Your task to perform on an android device: clear history in the chrome app Image 0: 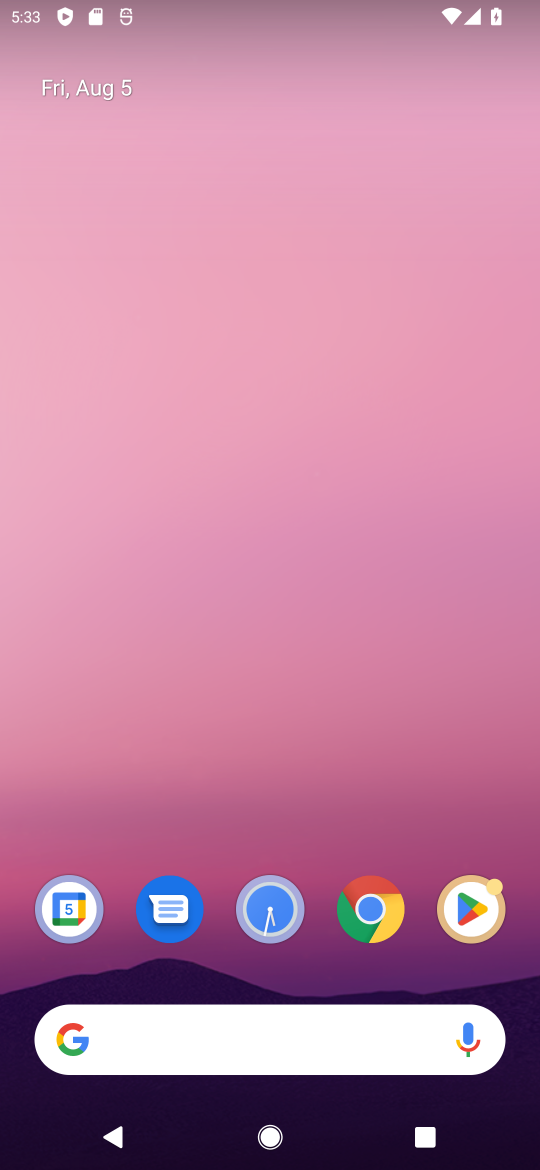
Step 0: press home button
Your task to perform on an android device: clear history in the chrome app Image 1: 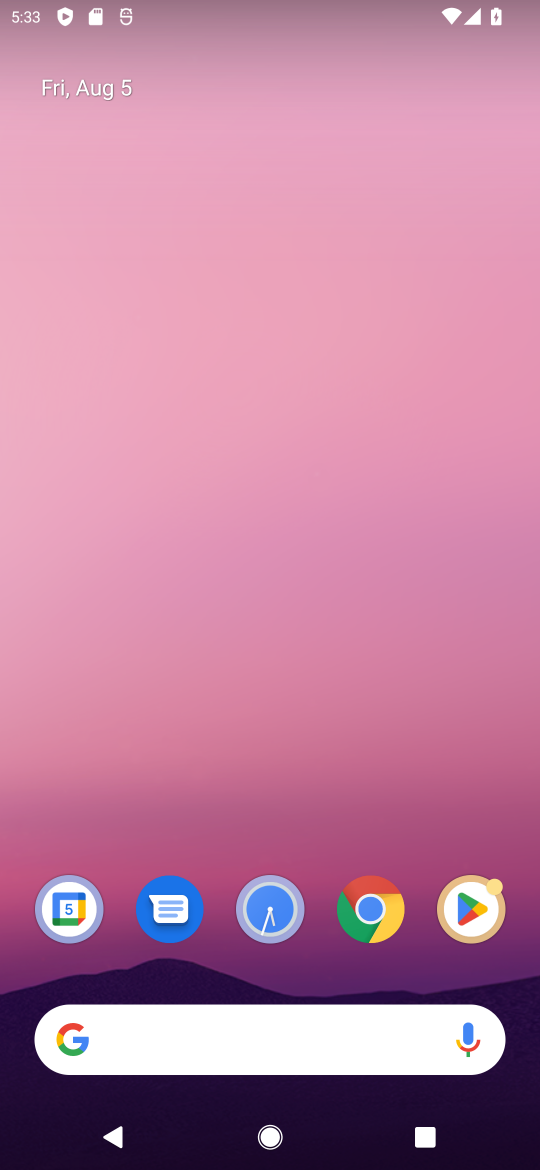
Step 1: click (373, 904)
Your task to perform on an android device: clear history in the chrome app Image 2: 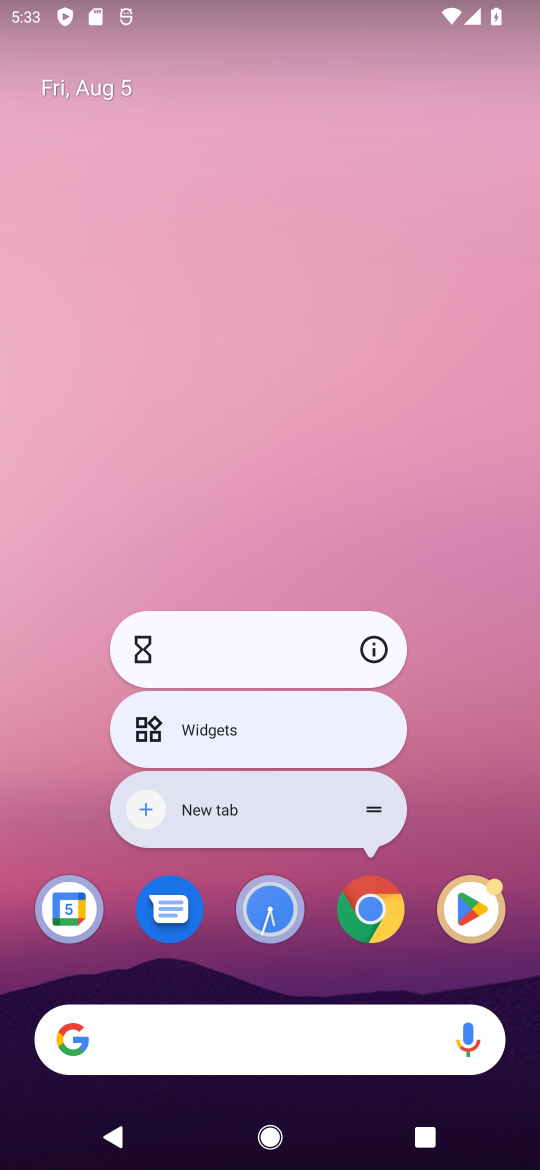
Step 2: click (362, 897)
Your task to perform on an android device: clear history in the chrome app Image 3: 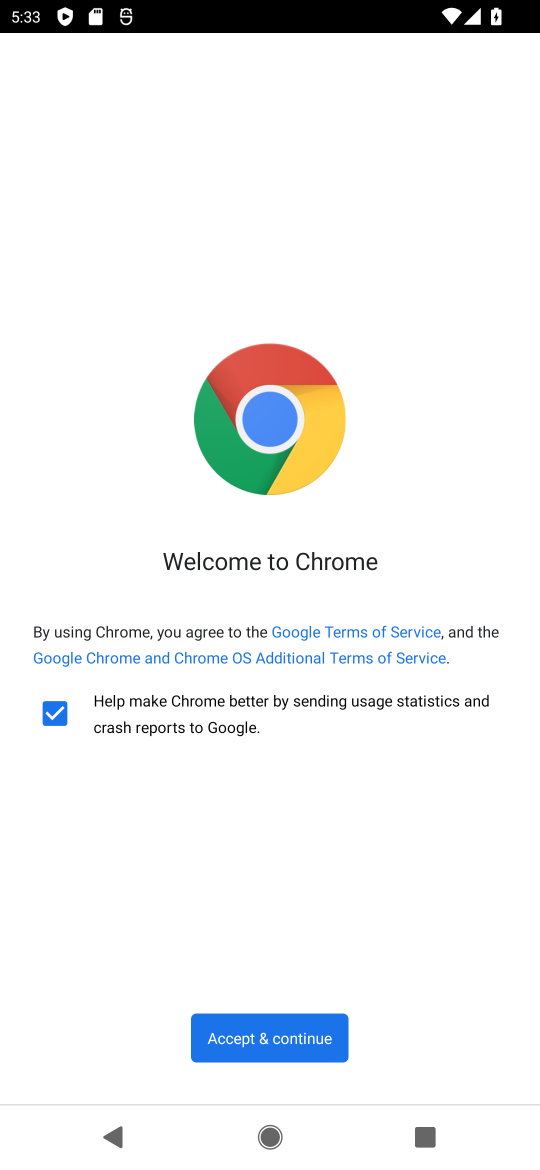
Step 3: click (258, 1023)
Your task to perform on an android device: clear history in the chrome app Image 4: 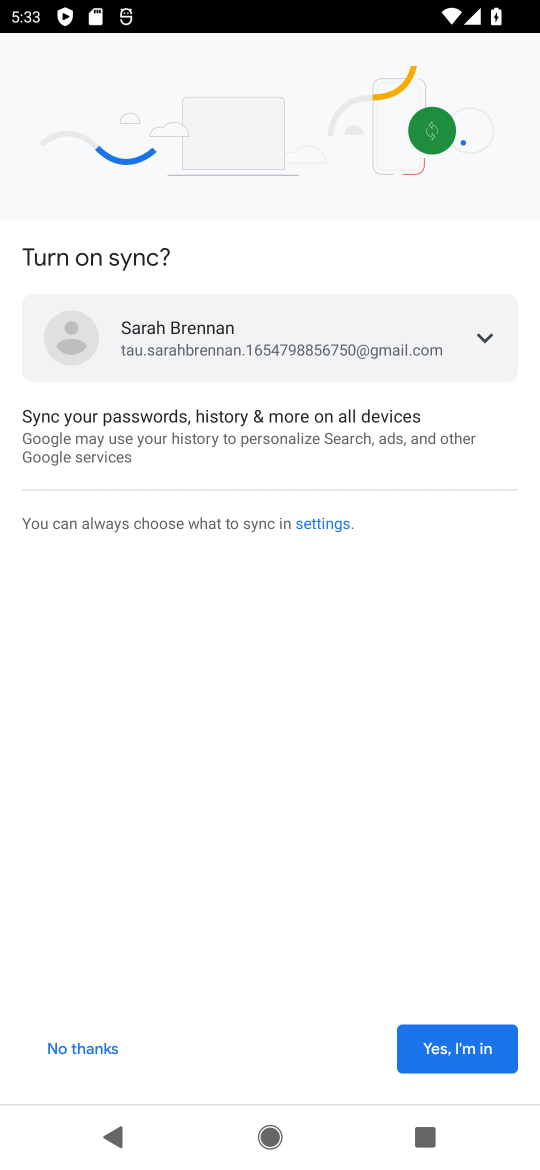
Step 4: click (463, 1054)
Your task to perform on an android device: clear history in the chrome app Image 5: 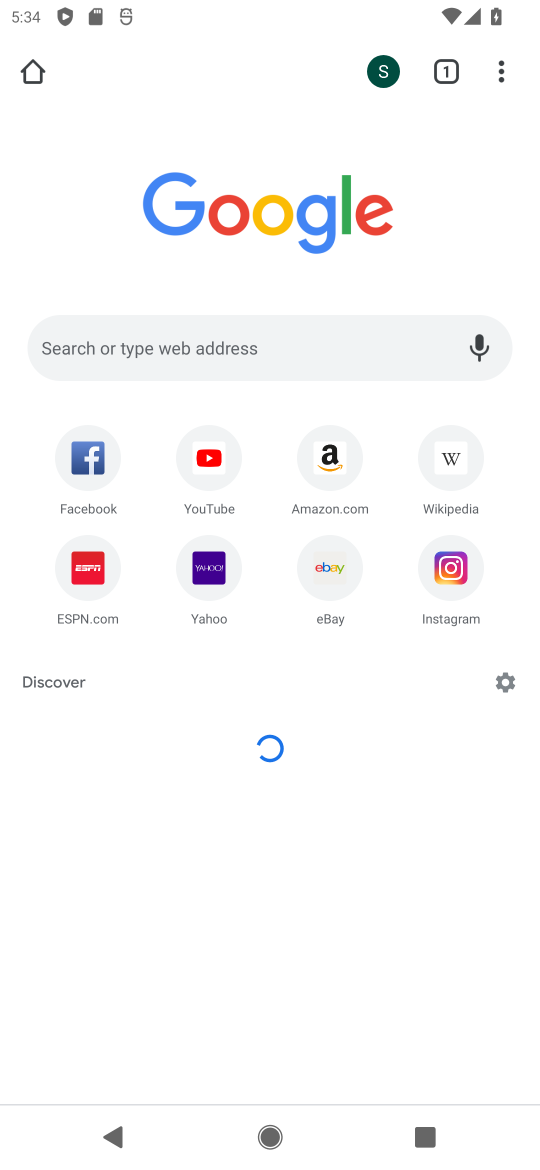
Step 5: drag from (502, 65) to (275, 645)
Your task to perform on an android device: clear history in the chrome app Image 6: 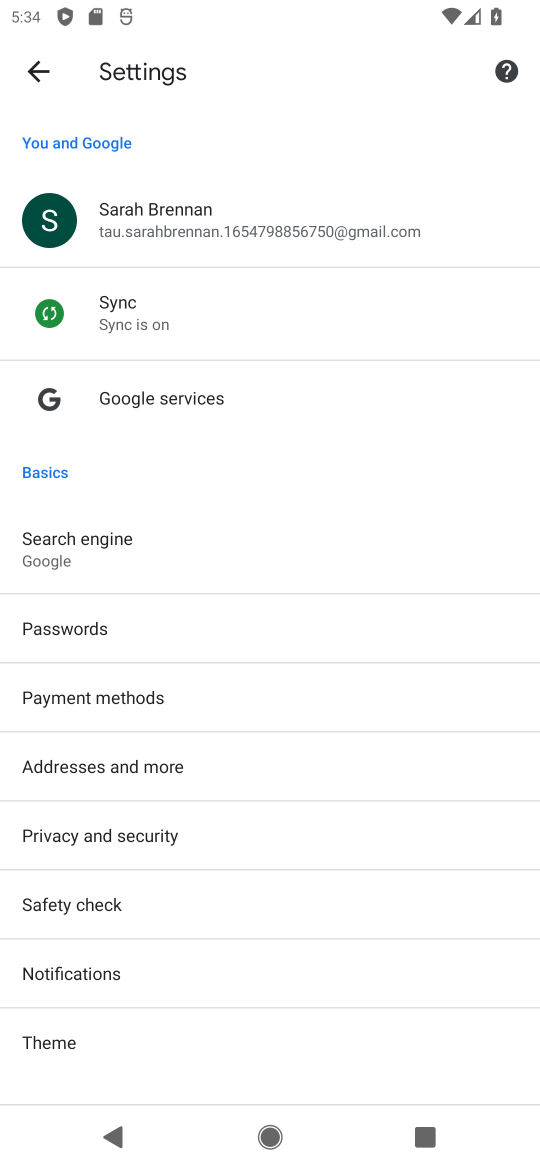
Step 6: click (108, 837)
Your task to perform on an android device: clear history in the chrome app Image 7: 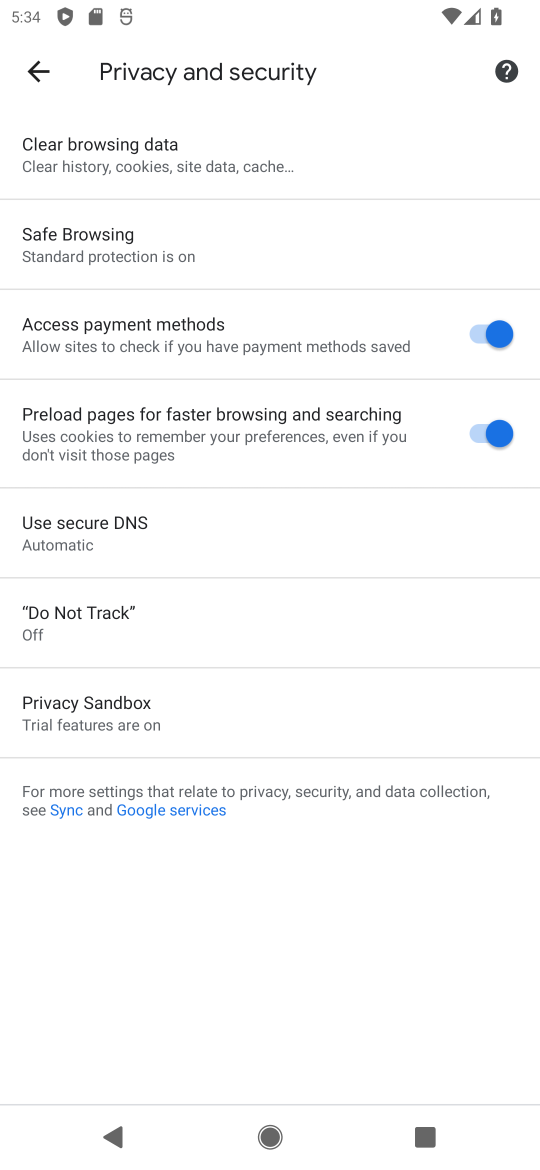
Step 7: click (127, 138)
Your task to perform on an android device: clear history in the chrome app Image 8: 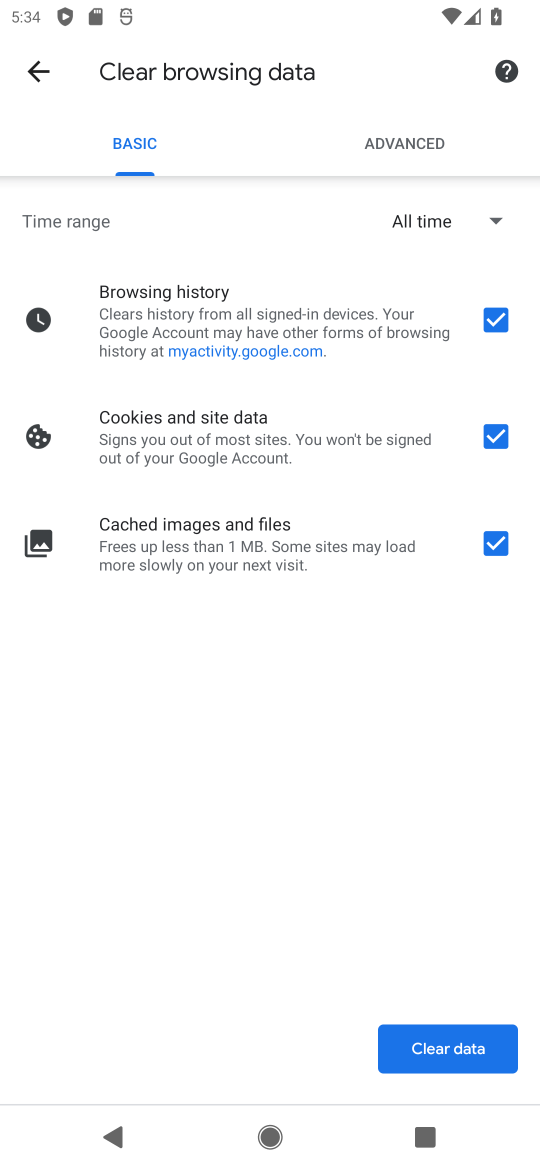
Step 8: click (507, 431)
Your task to perform on an android device: clear history in the chrome app Image 9: 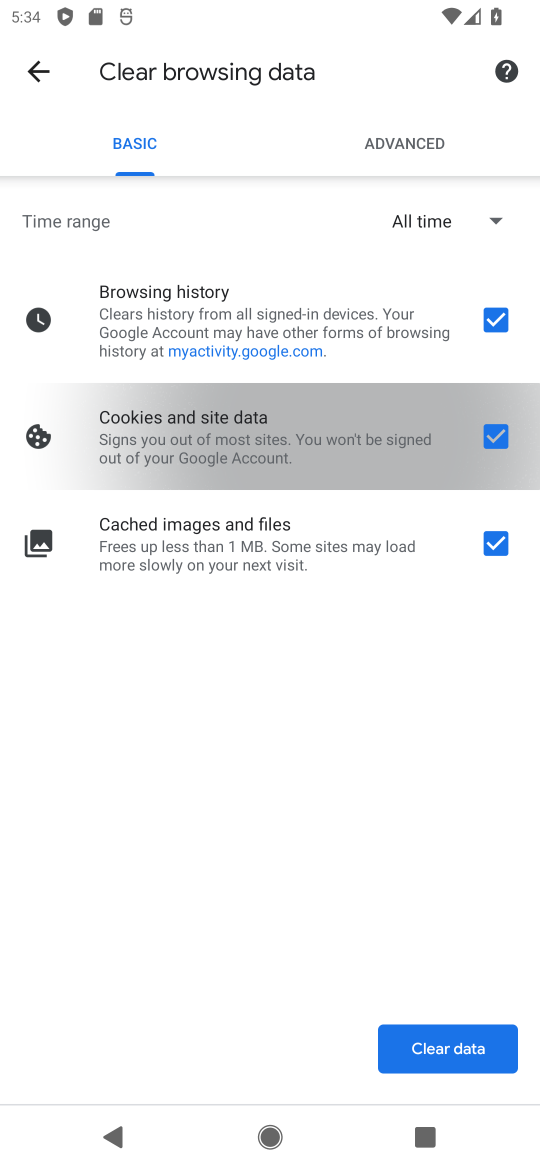
Step 9: click (491, 541)
Your task to perform on an android device: clear history in the chrome app Image 10: 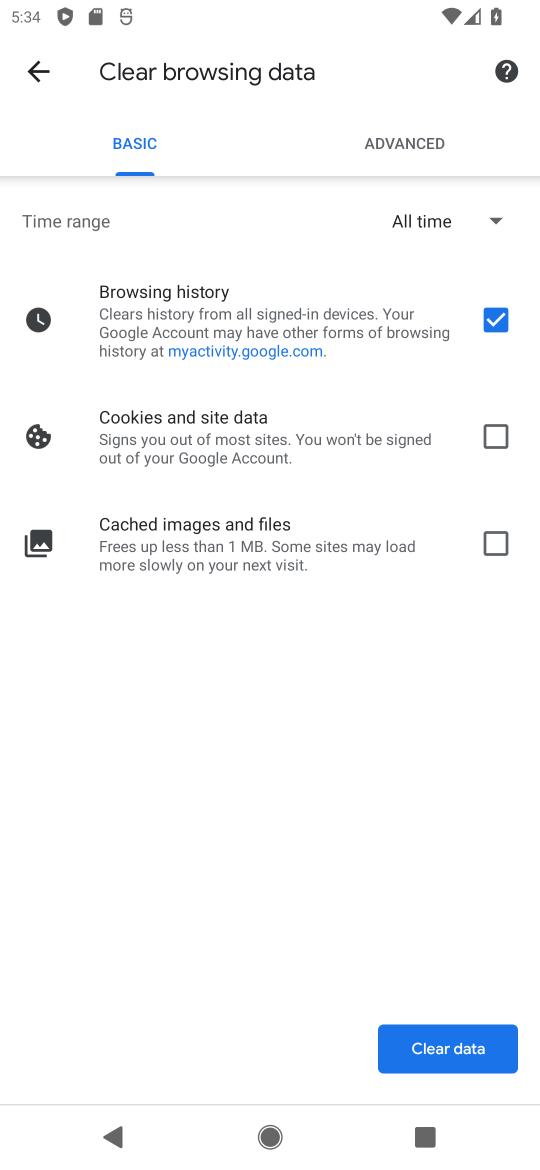
Step 10: click (459, 1065)
Your task to perform on an android device: clear history in the chrome app Image 11: 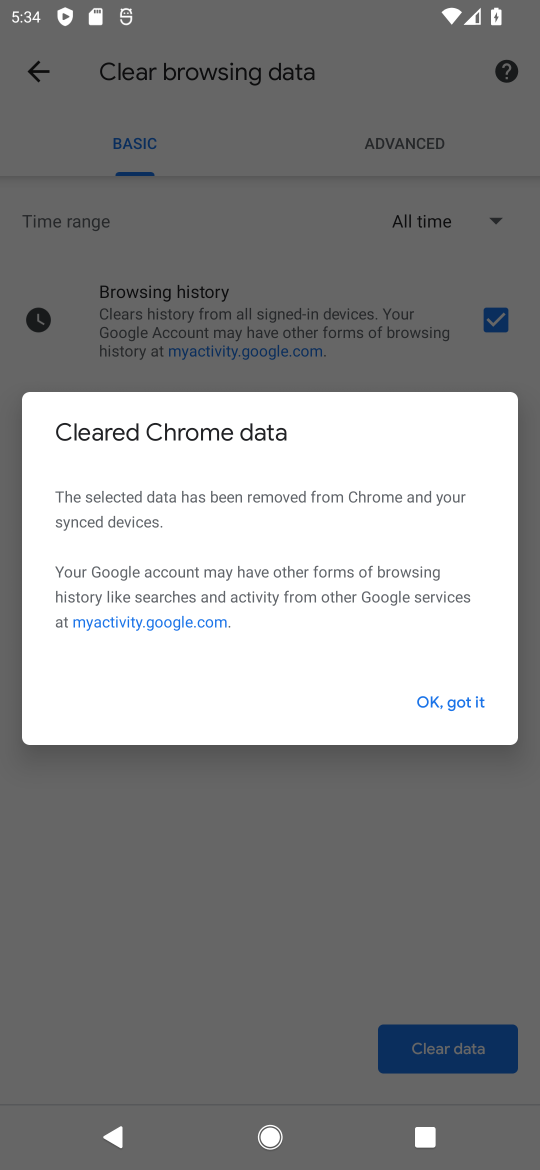
Step 11: click (431, 702)
Your task to perform on an android device: clear history in the chrome app Image 12: 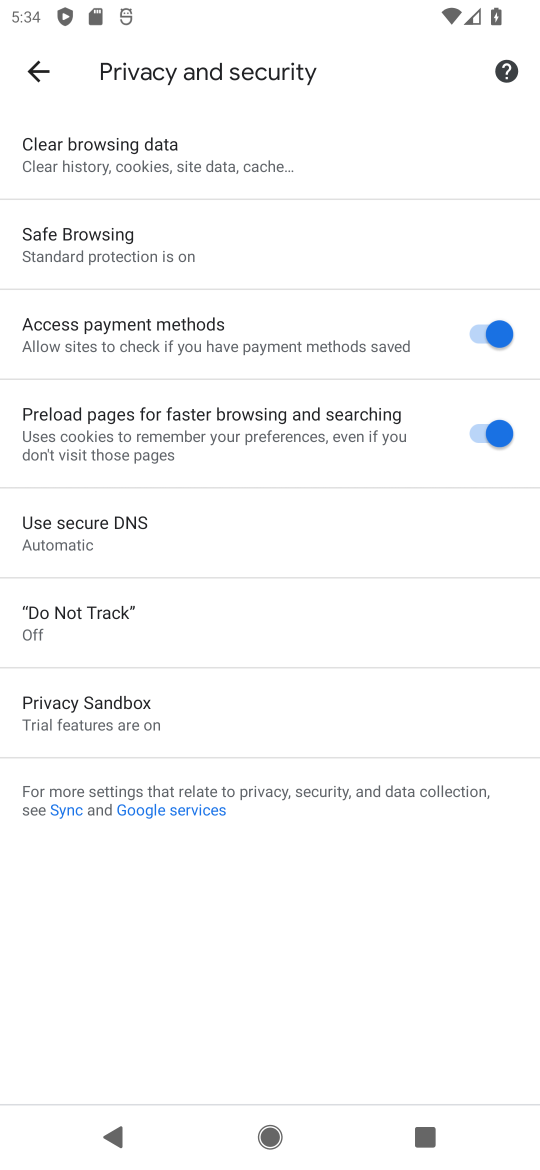
Step 12: task complete